Your task to perform on an android device: open device folders in google photos Image 0: 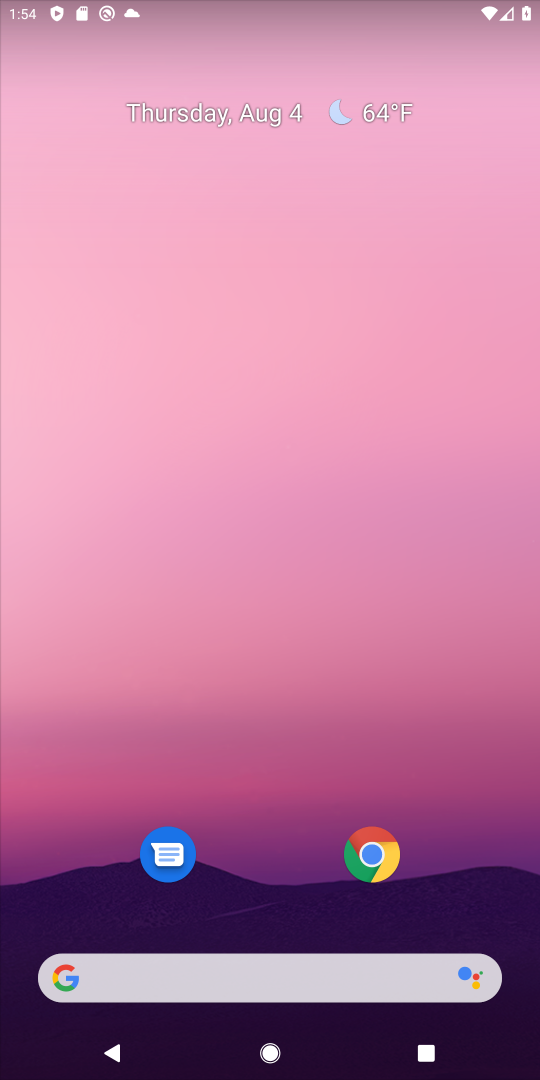
Step 0: drag from (328, 447) to (539, 852)
Your task to perform on an android device: open device folders in google photos Image 1: 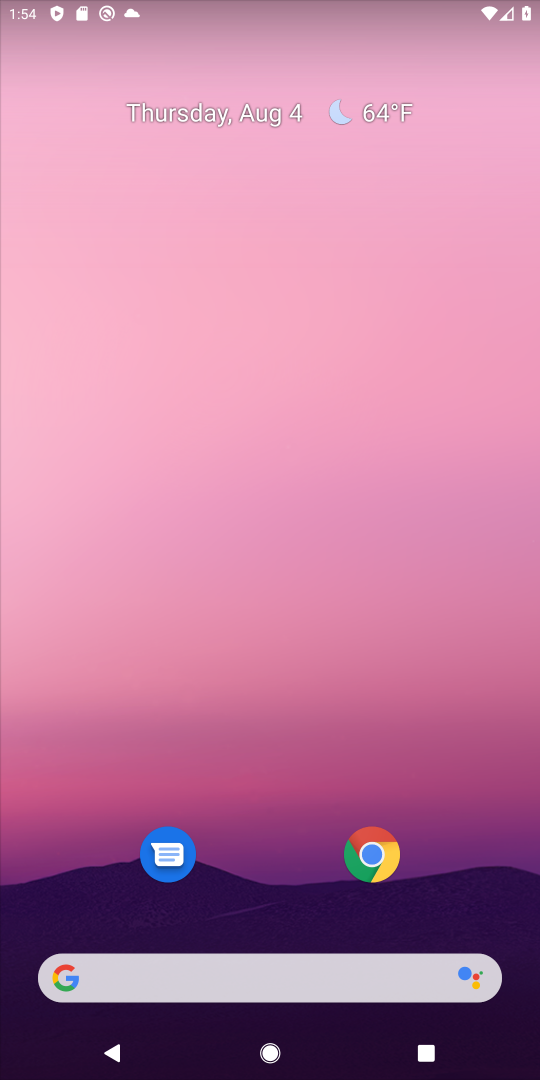
Step 1: drag from (282, 860) to (292, 364)
Your task to perform on an android device: open device folders in google photos Image 2: 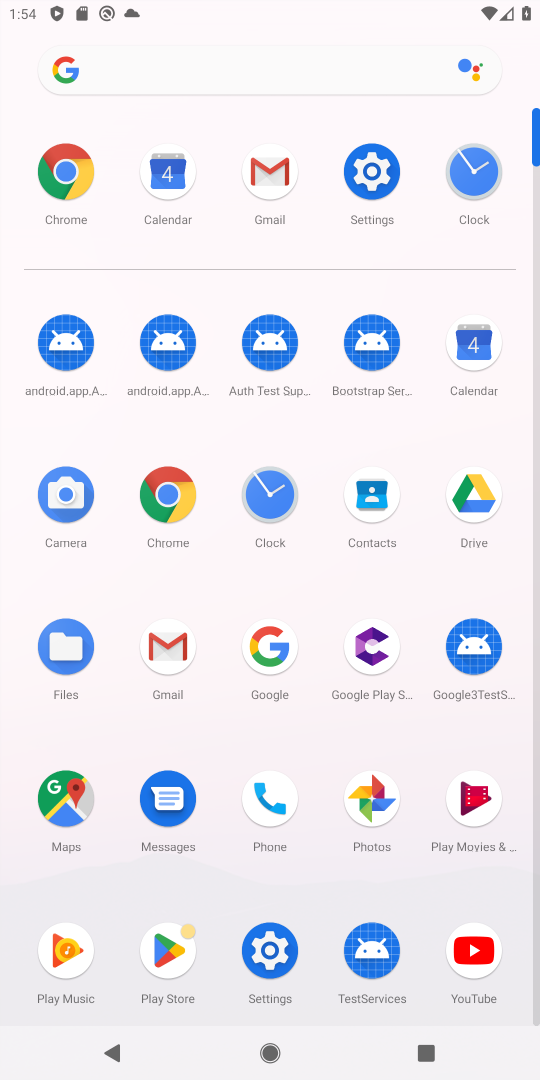
Step 2: click (374, 805)
Your task to perform on an android device: open device folders in google photos Image 3: 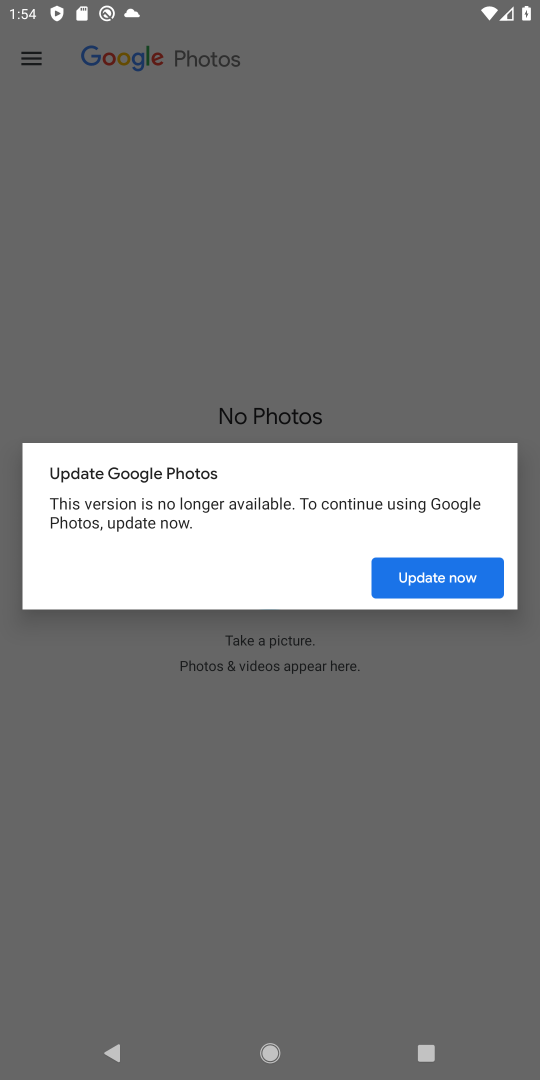
Step 3: task complete